Your task to perform on an android device: turn on translation in the chrome app Image 0: 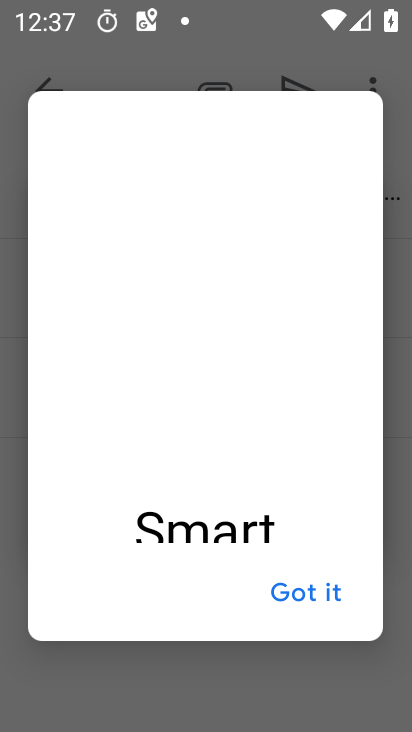
Step 0: press home button
Your task to perform on an android device: turn on translation in the chrome app Image 1: 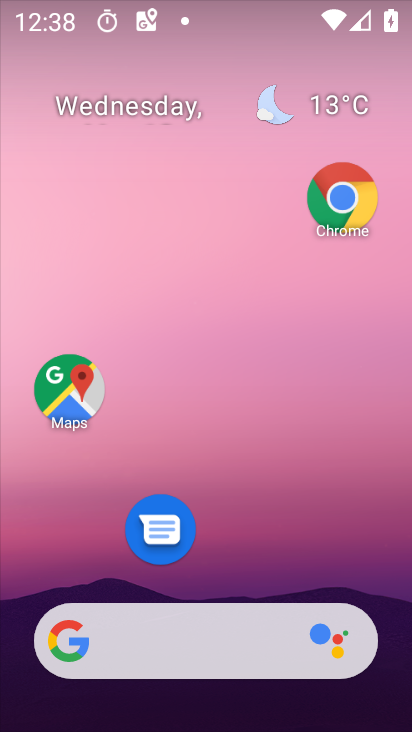
Step 1: click (338, 200)
Your task to perform on an android device: turn on translation in the chrome app Image 2: 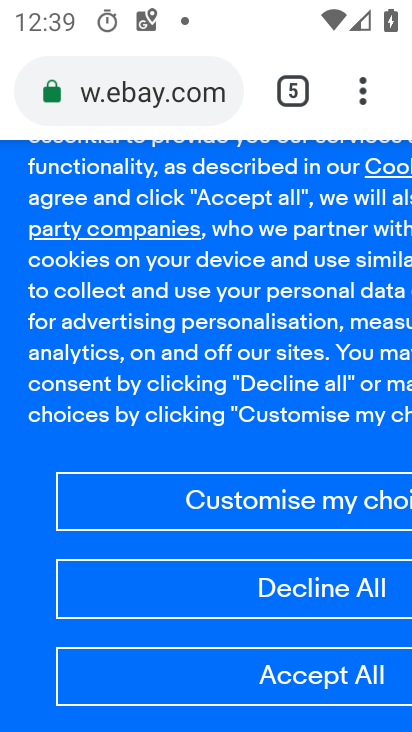
Step 2: click (376, 88)
Your task to perform on an android device: turn on translation in the chrome app Image 3: 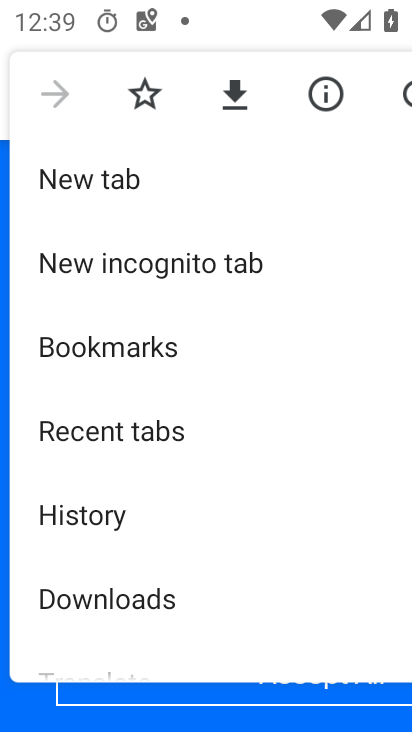
Step 3: drag from (111, 634) to (181, 189)
Your task to perform on an android device: turn on translation in the chrome app Image 4: 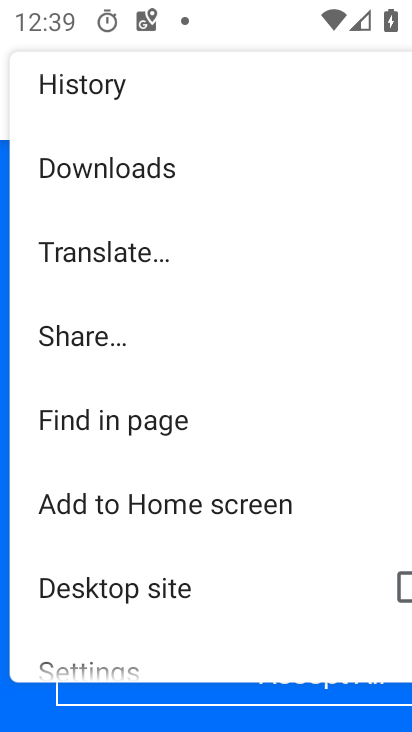
Step 4: drag from (61, 640) to (108, 194)
Your task to perform on an android device: turn on translation in the chrome app Image 5: 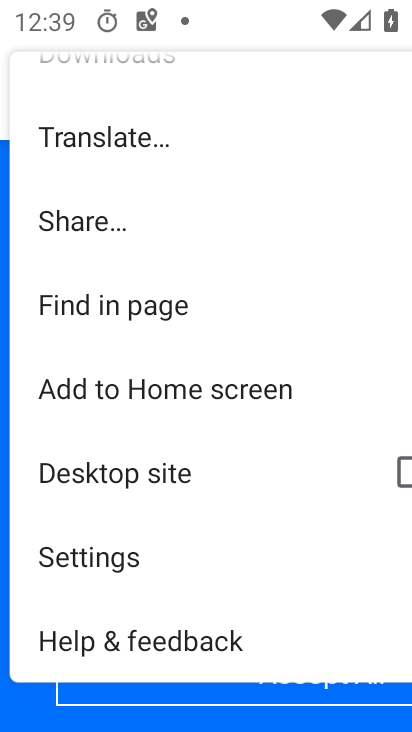
Step 5: click (109, 568)
Your task to perform on an android device: turn on translation in the chrome app Image 6: 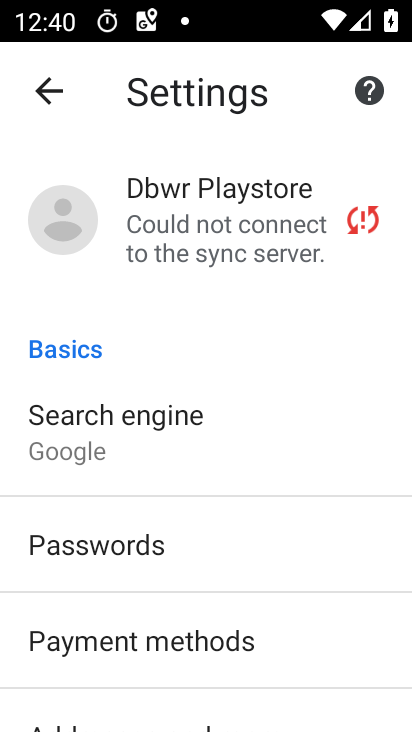
Step 6: drag from (160, 654) to (219, 156)
Your task to perform on an android device: turn on translation in the chrome app Image 7: 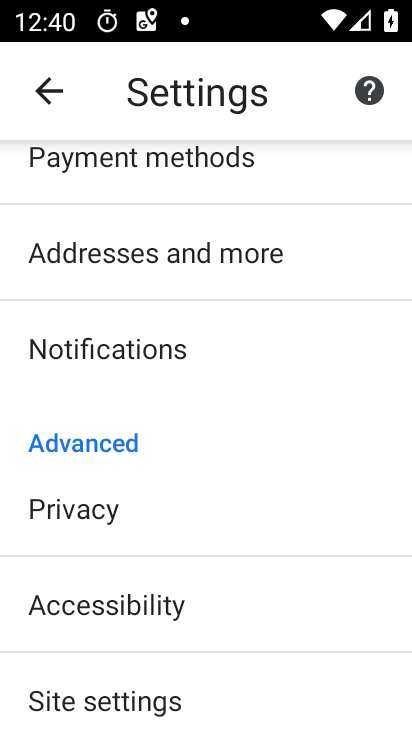
Step 7: drag from (107, 579) to (257, 20)
Your task to perform on an android device: turn on translation in the chrome app Image 8: 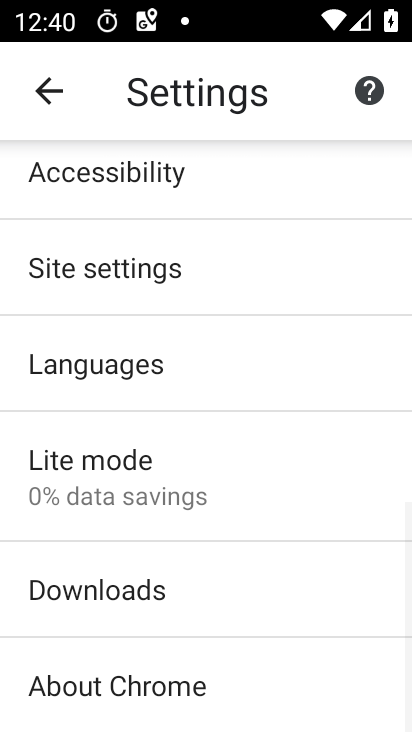
Step 8: click (142, 398)
Your task to perform on an android device: turn on translation in the chrome app Image 9: 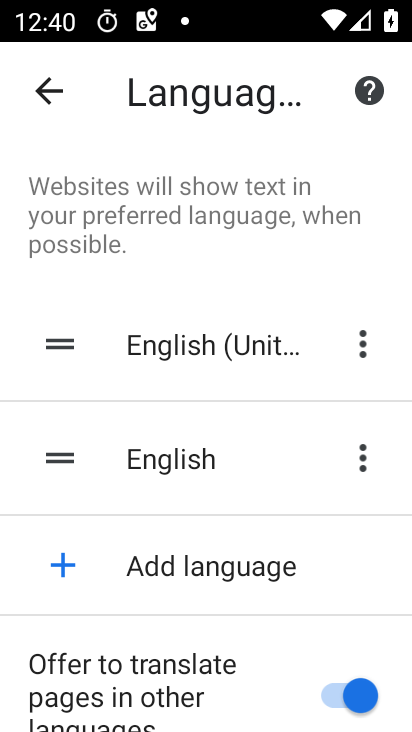
Step 9: task complete